Your task to perform on an android device: create a new album in the google photos Image 0: 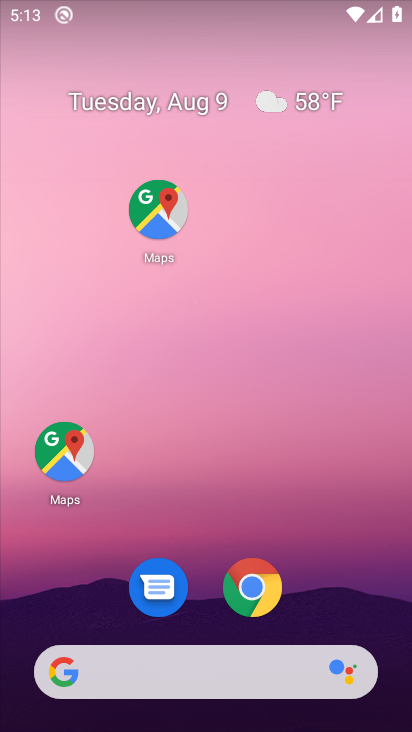
Step 0: drag from (216, 711) to (190, 273)
Your task to perform on an android device: create a new album in the google photos Image 1: 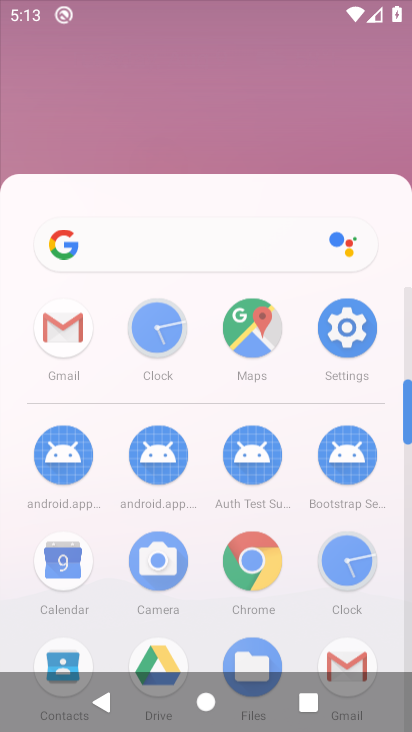
Step 1: drag from (179, 540) to (179, 120)
Your task to perform on an android device: create a new album in the google photos Image 2: 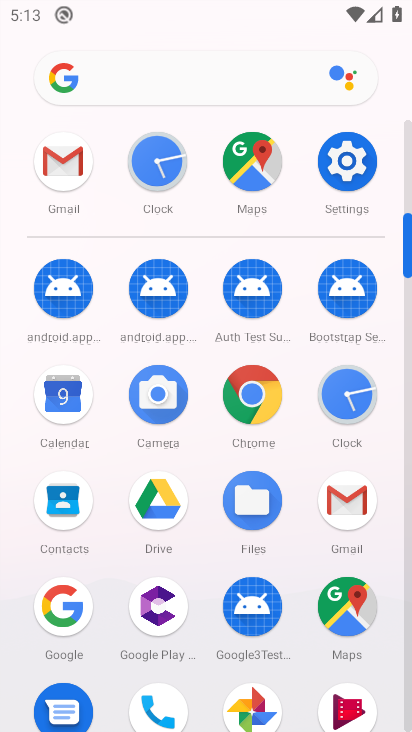
Step 2: drag from (223, 622) to (193, 233)
Your task to perform on an android device: create a new album in the google photos Image 3: 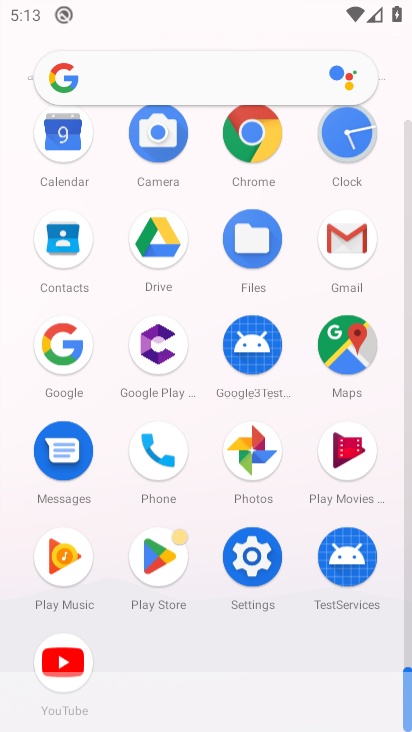
Step 3: drag from (187, 533) to (202, 270)
Your task to perform on an android device: create a new album in the google photos Image 4: 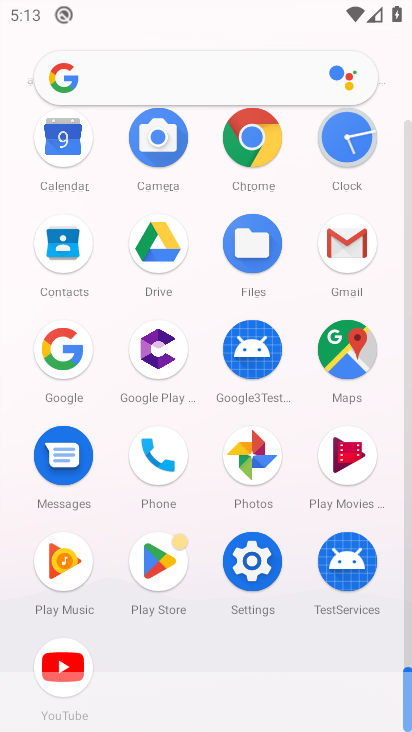
Step 4: click (249, 467)
Your task to perform on an android device: create a new album in the google photos Image 5: 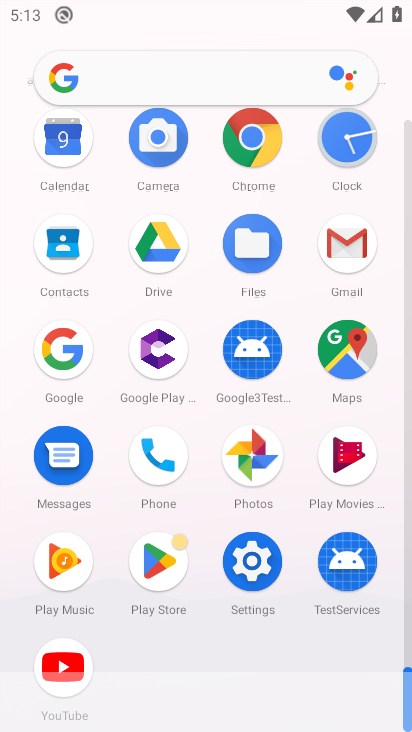
Step 5: click (249, 466)
Your task to perform on an android device: create a new album in the google photos Image 6: 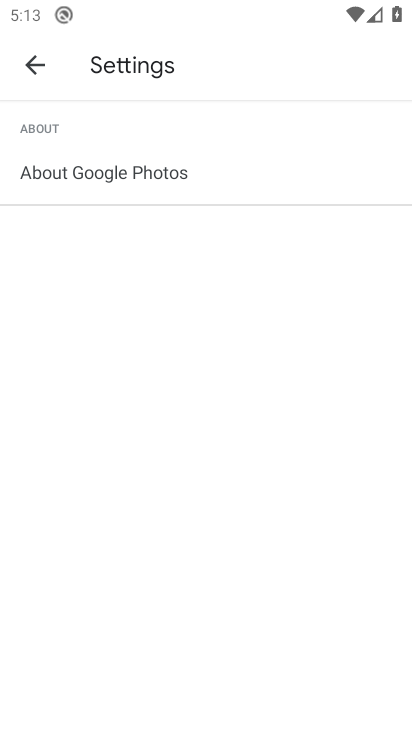
Step 6: click (249, 463)
Your task to perform on an android device: create a new album in the google photos Image 7: 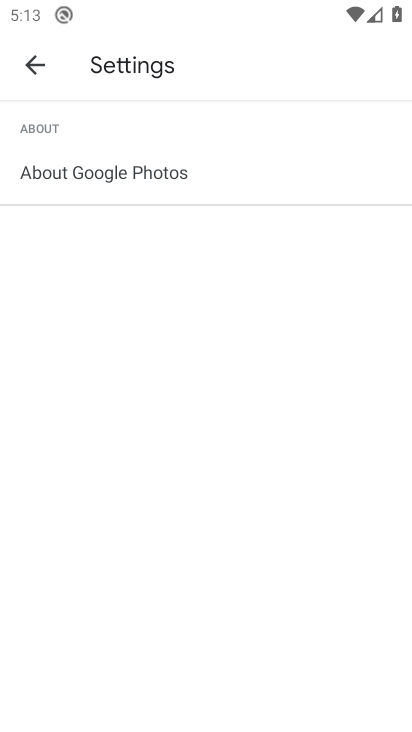
Step 7: click (22, 66)
Your task to perform on an android device: create a new album in the google photos Image 8: 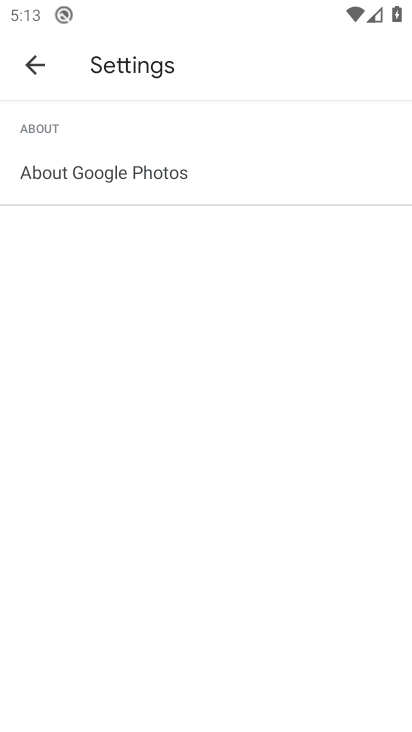
Step 8: click (31, 69)
Your task to perform on an android device: create a new album in the google photos Image 9: 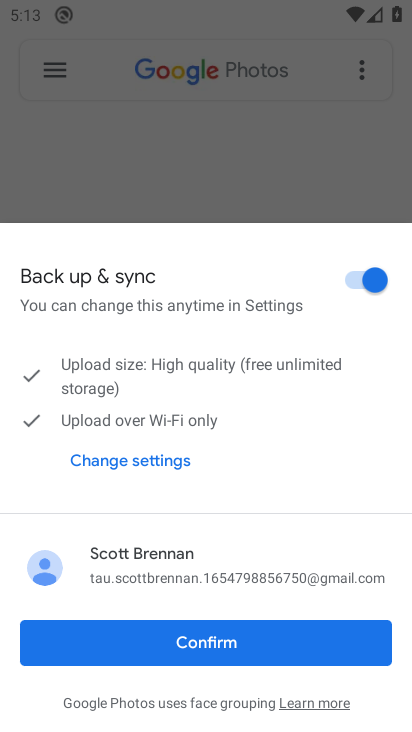
Step 9: click (201, 637)
Your task to perform on an android device: create a new album in the google photos Image 10: 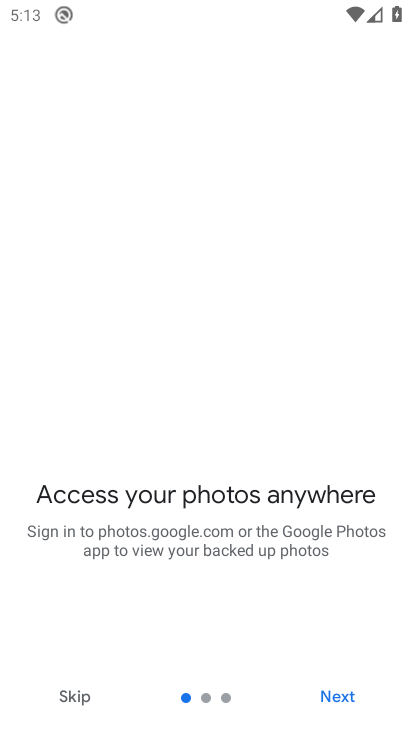
Step 10: click (77, 694)
Your task to perform on an android device: create a new album in the google photos Image 11: 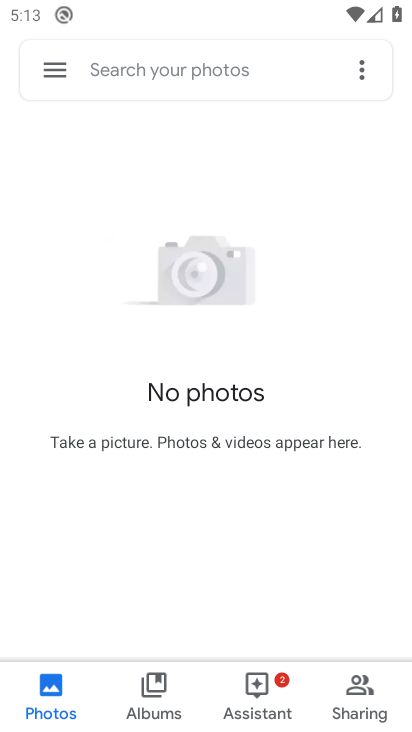
Step 11: click (366, 69)
Your task to perform on an android device: create a new album in the google photos Image 12: 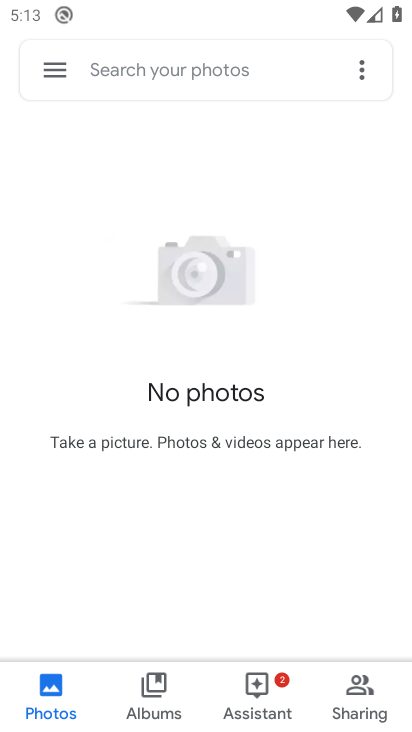
Step 12: click (366, 69)
Your task to perform on an android device: create a new album in the google photos Image 13: 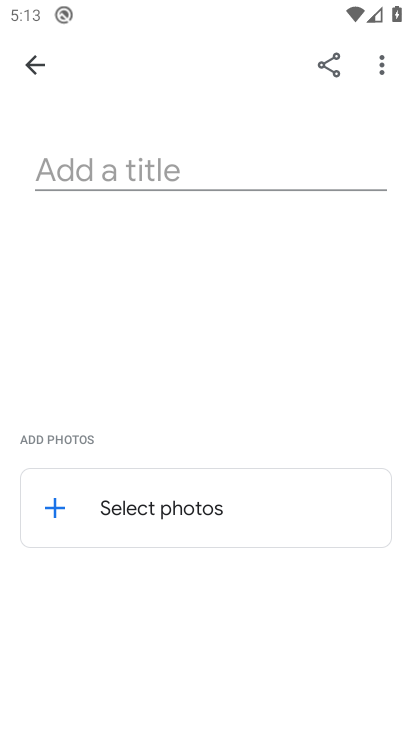
Step 13: click (126, 517)
Your task to perform on an android device: create a new album in the google photos Image 14: 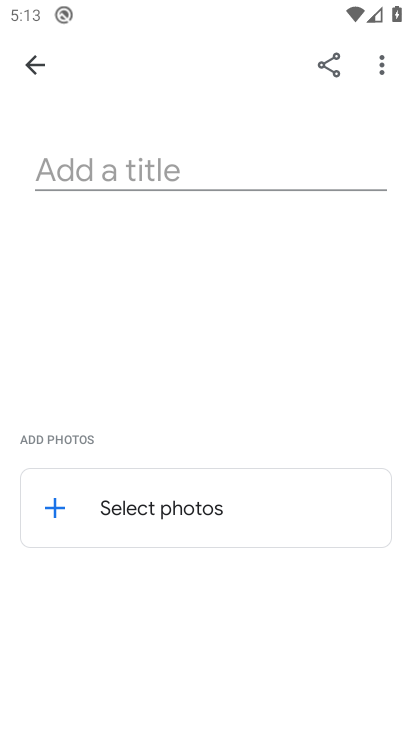
Step 14: click (65, 164)
Your task to perform on an android device: create a new album in the google photos Image 15: 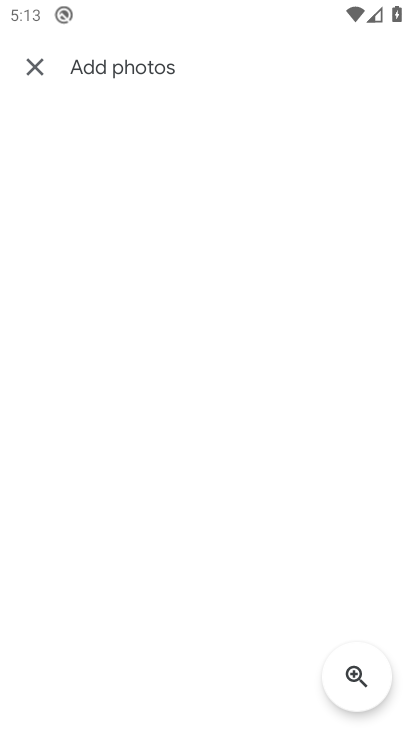
Step 15: click (106, 66)
Your task to perform on an android device: create a new album in the google photos Image 16: 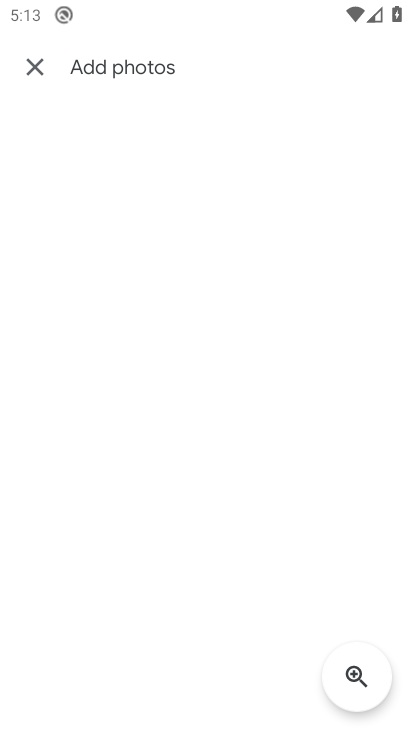
Step 16: click (112, 61)
Your task to perform on an android device: create a new album in the google photos Image 17: 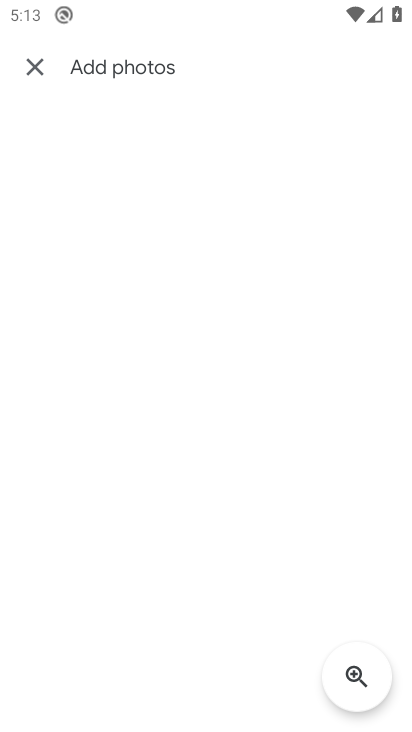
Step 17: click (28, 58)
Your task to perform on an android device: create a new album in the google photos Image 18: 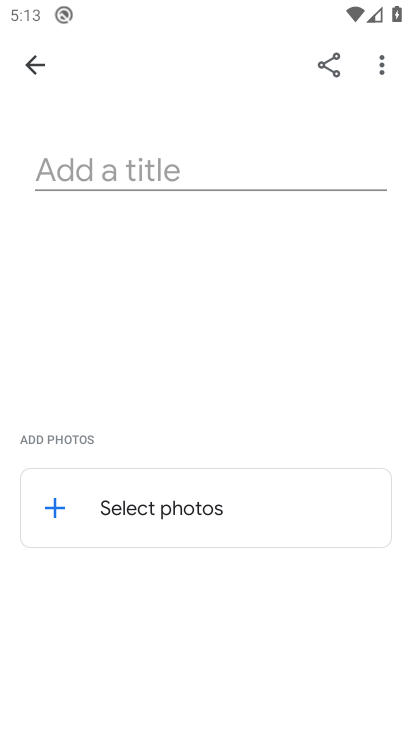
Step 18: click (119, 506)
Your task to perform on an android device: create a new album in the google photos Image 19: 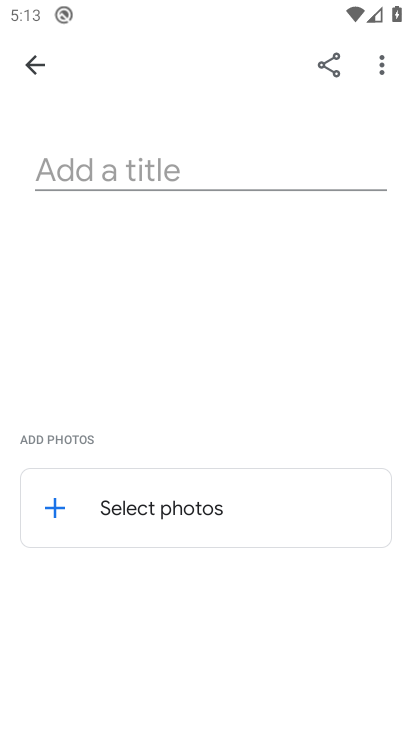
Step 19: click (119, 506)
Your task to perform on an android device: create a new album in the google photos Image 20: 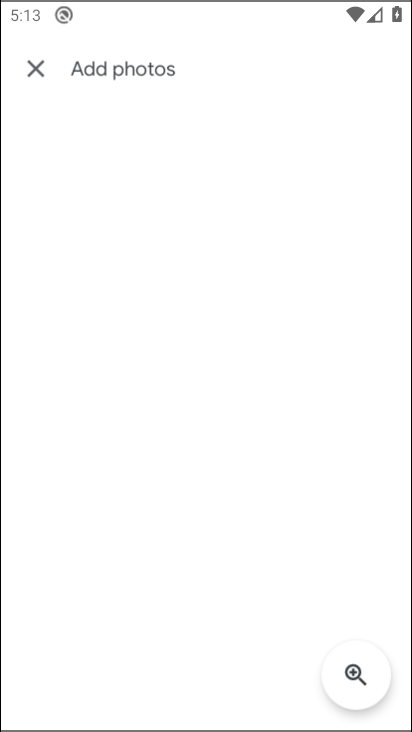
Step 20: click (118, 507)
Your task to perform on an android device: create a new album in the google photos Image 21: 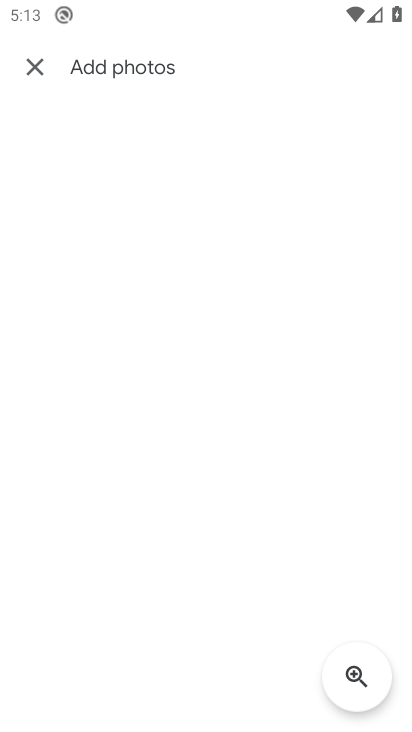
Step 21: click (118, 508)
Your task to perform on an android device: create a new album in the google photos Image 22: 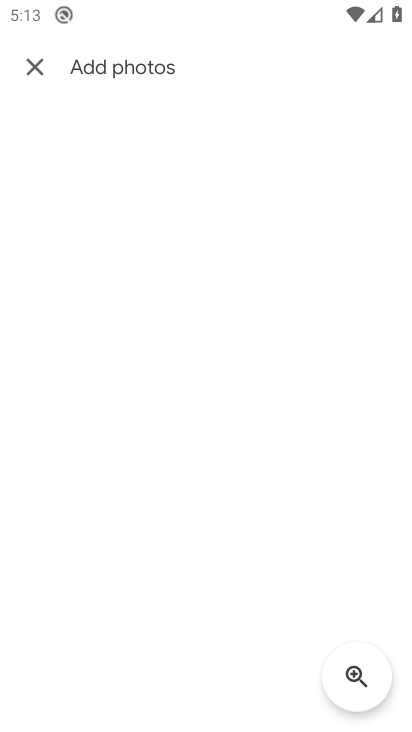
Step 22: task complete